Your task to perform on an android device: Open calendar and show me the third week of next month Image 0: 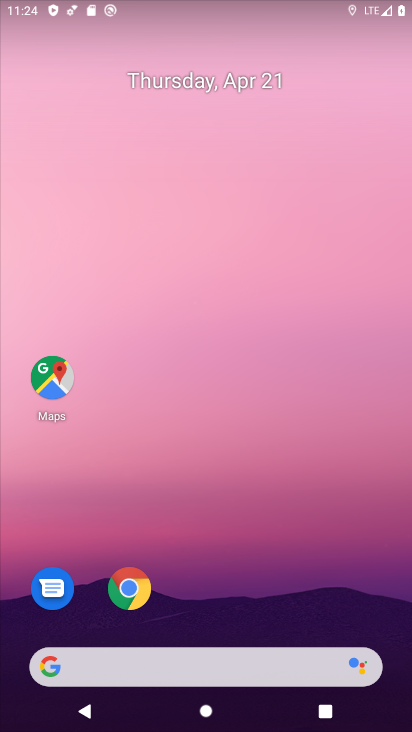
Step 0: drag from (294, 688) to (347, 42)
Your task to perform on an android device: Open calendar and show me the third week of next month Image 1: 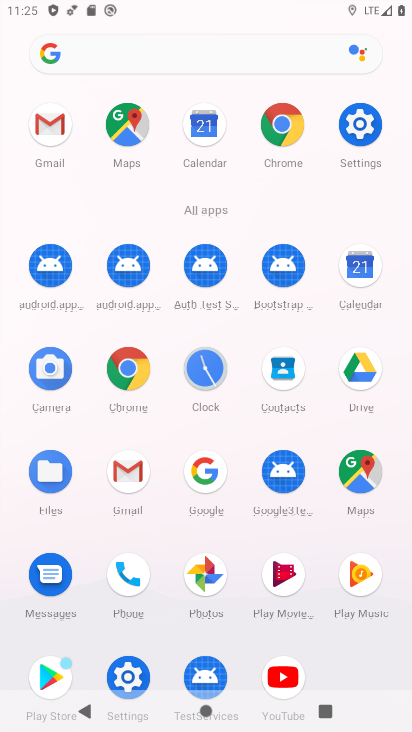
Step 1: click (355, 278)
Your task to perform on an android device: Open calendar and show me the third week of next month Image 2: 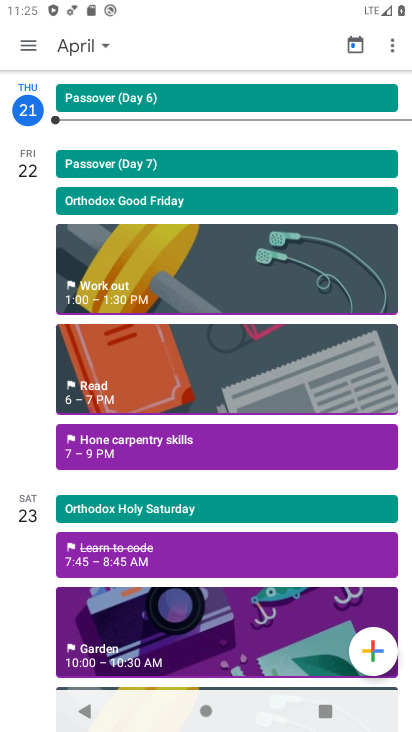
Step 2: click (31, 48)
Your task to perform on an android device: Open calendar and show me the third week of next month Image 3: 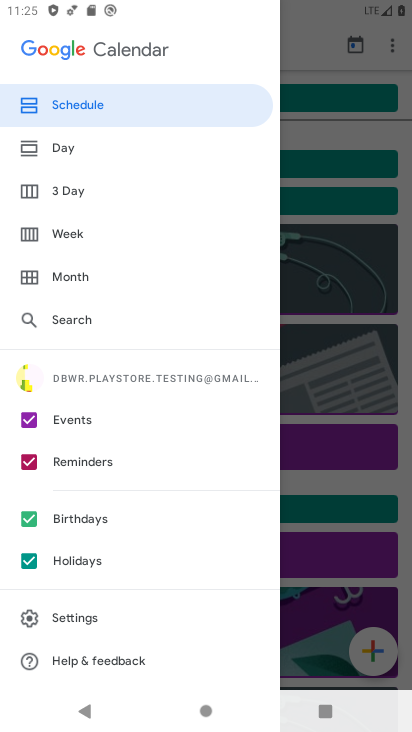
Step 3: click (72, 271)
Your task to perform on an android device: Open calendar and show me the third week of next month Image 4: 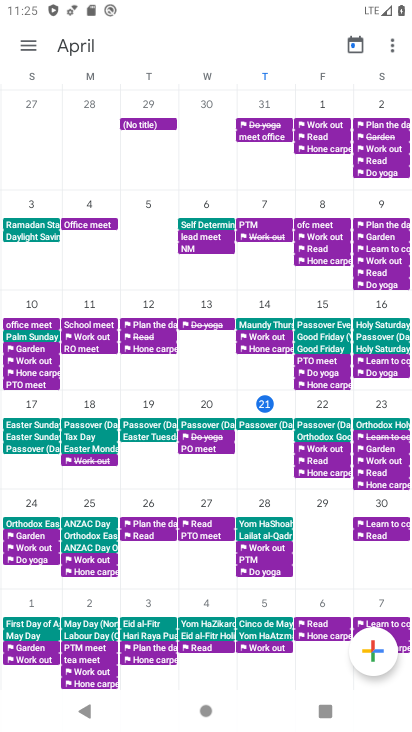
Step 4: drag from (385, 390) to (2, 480)
Your task to perform on an android device: Open calendar and show me the third week of next month Image 5: 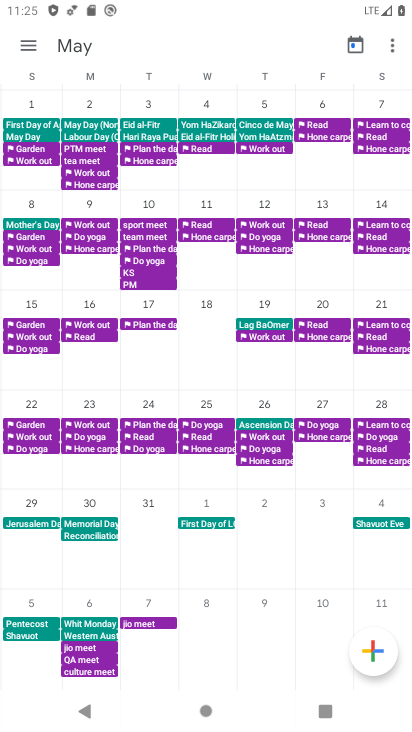
Step 5: click (87, 315)
Your task to perform on an android device: Open calendar and show me the third week of next month Image 6: 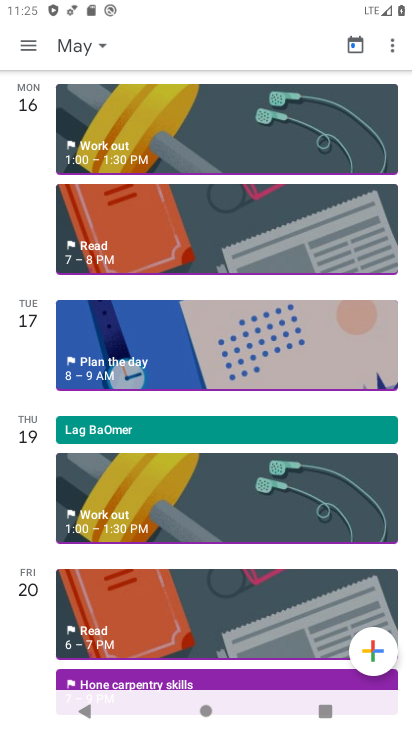
Step 6: task complete